Your task to perform on an android device: turn notification dots on Image 0: 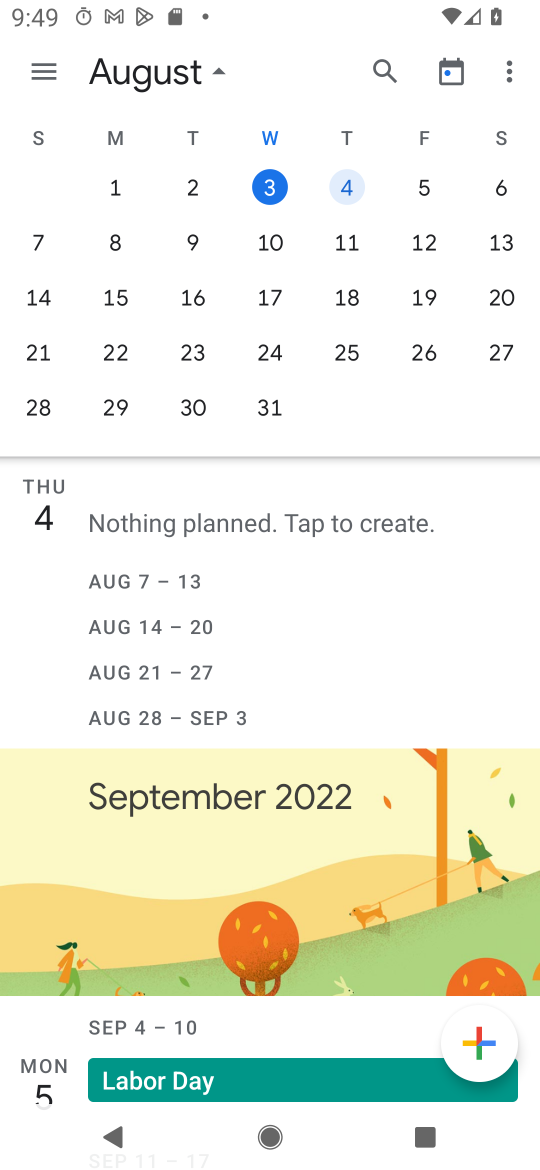
Step 0: press home button
Your task to perform on an android device: turn notification dots on Image 1: 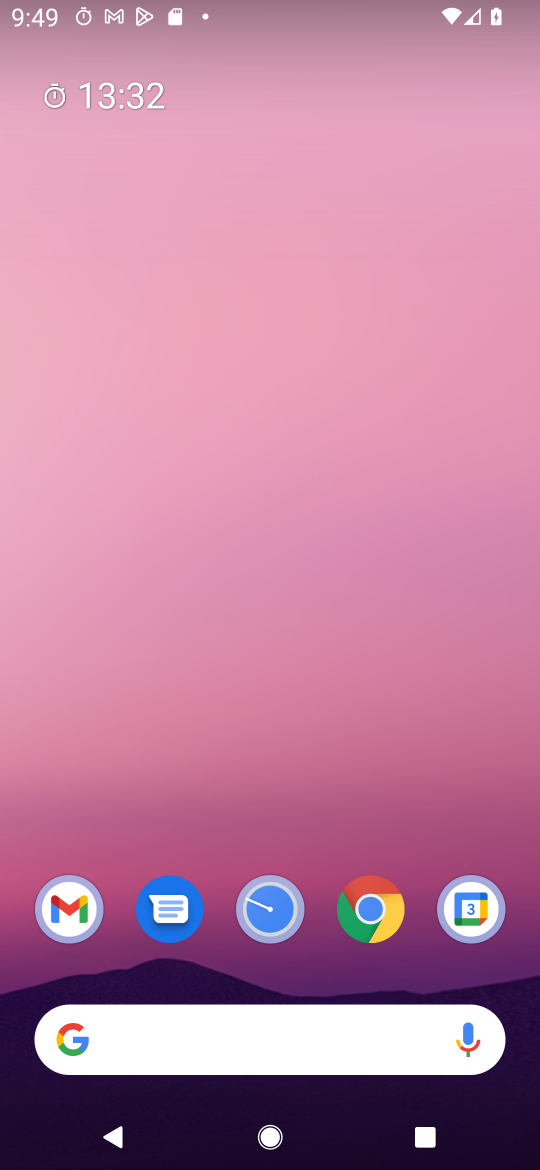
Step 1: drag from (410, 790) to (439, 330)
Your task to perform on an android device: turn notification dots on Image 2: 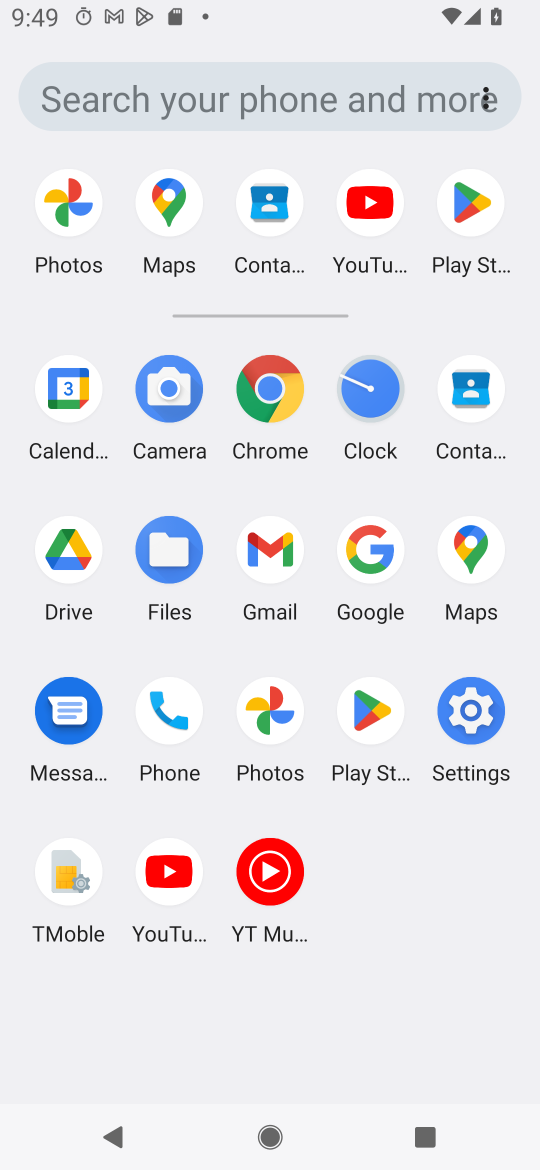
Step 2: click (479, 727)
Your task to perform on an android device: turn notification dots on Image 3: 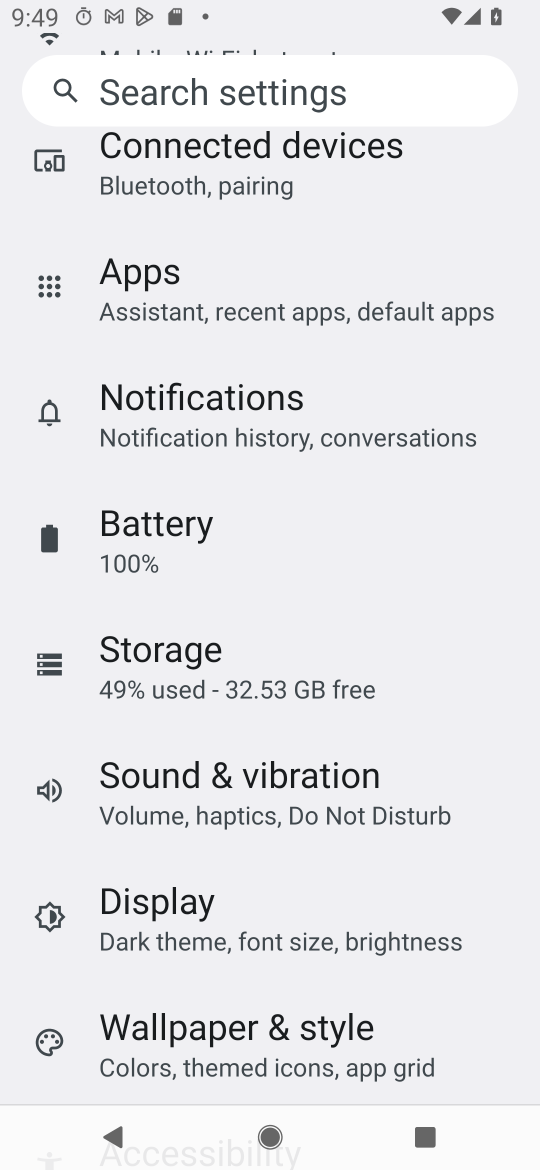
Step 3: drag from (445, 863) to (483, 604)
Your task to perform on an android device: turn notification dots on Image 4: 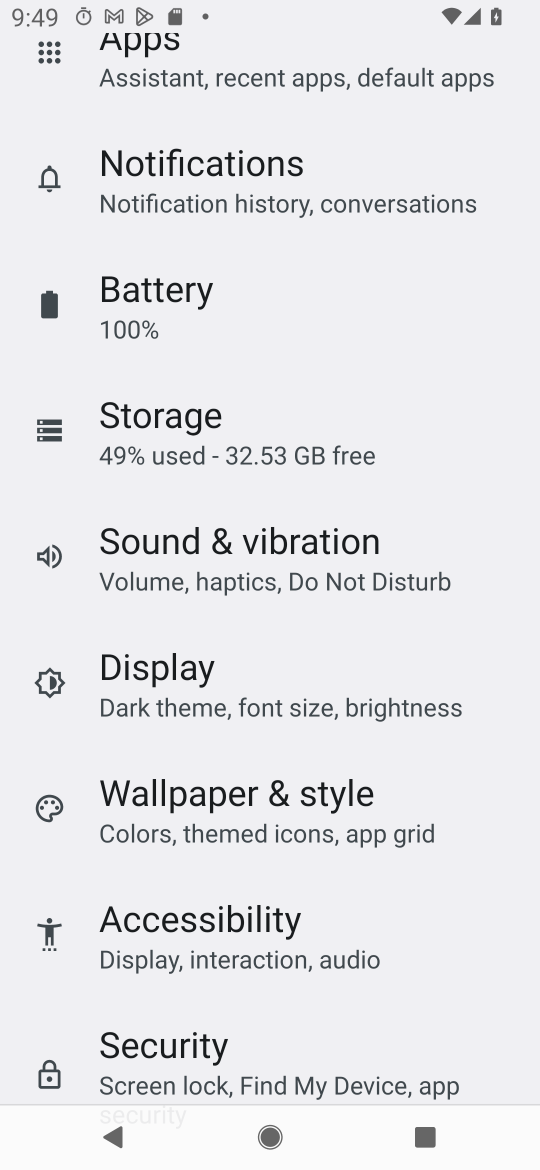
Step 4: drag from (490, 916) to (494, 676)
Your task to perform on an android device: turn notification dots on Image 5: 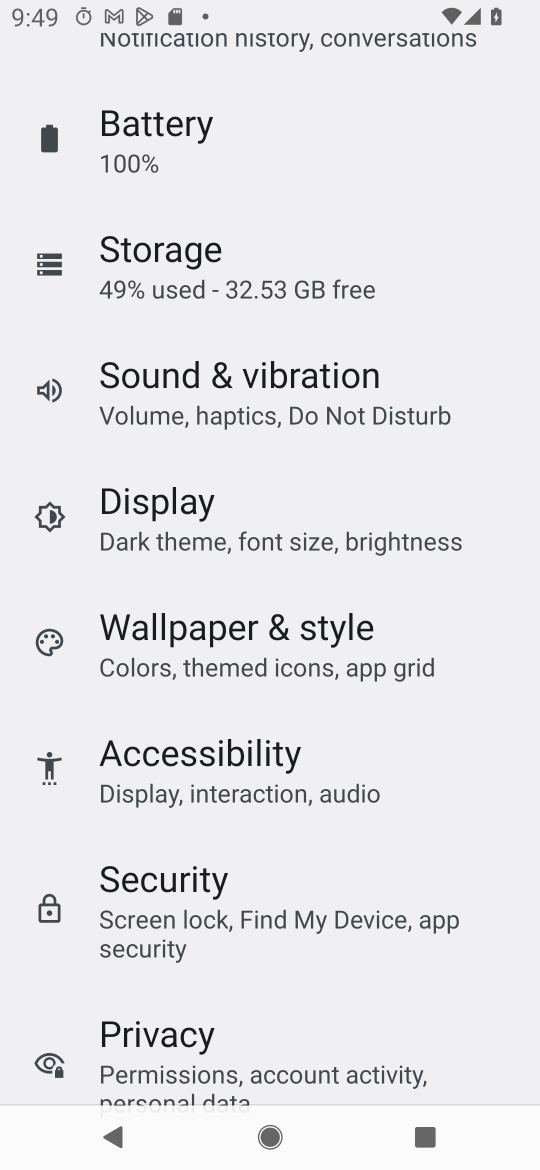
Step 5: drag from (504, 542) to (493, 725)
Your task to perform on an android device: turn notification dots on Image 6: 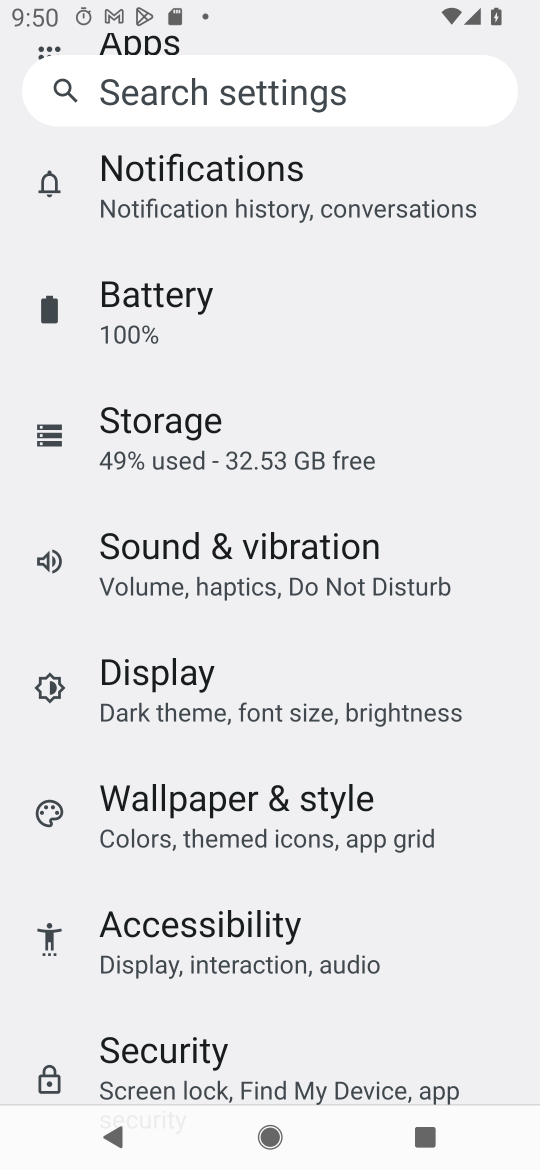
Step 6: drag from (493, 477) to (493, 609)
Your task to perform on an android device: turn notification dots on Image 7: 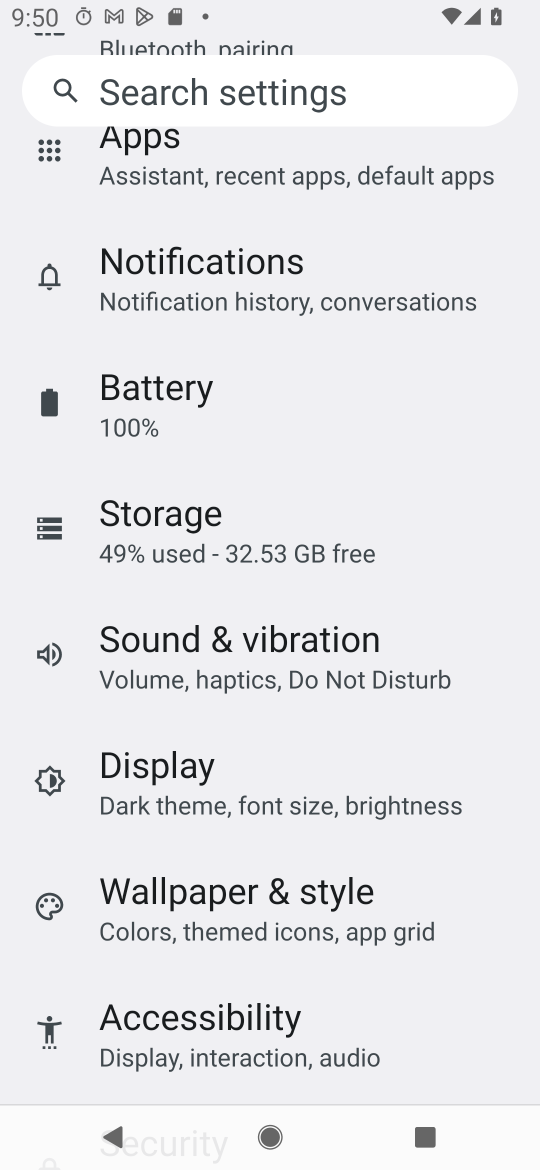
Step 7: drag from (475, 458) to (484, 618)
Your task to perform on an android device: turn notification dots on Image 8: 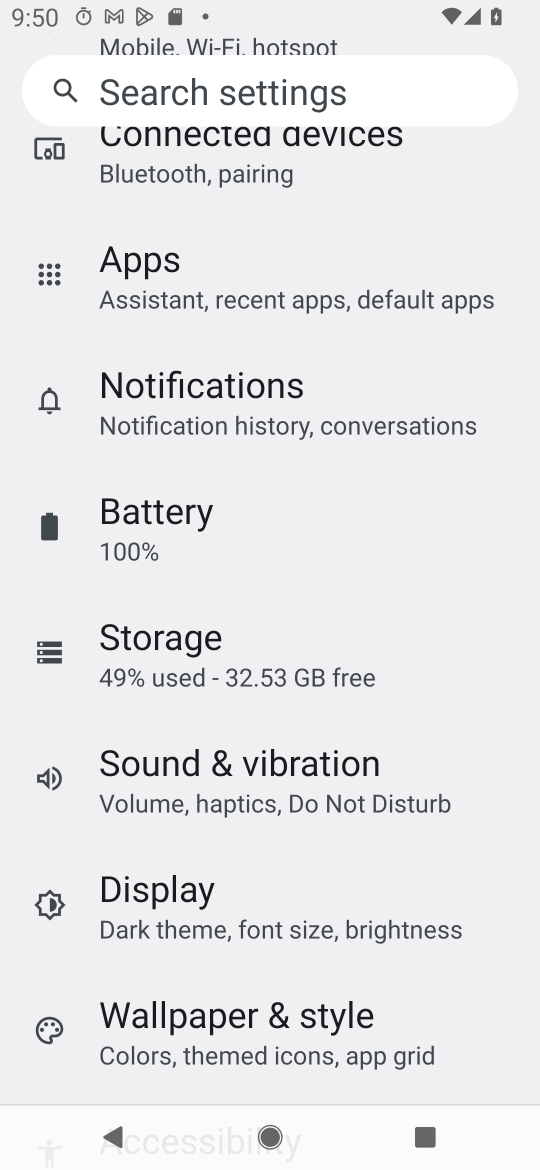
Step 8: drag from (476, 488) to (476, 676)
Your task to perform on an android device: turn notification dots on Image 9: 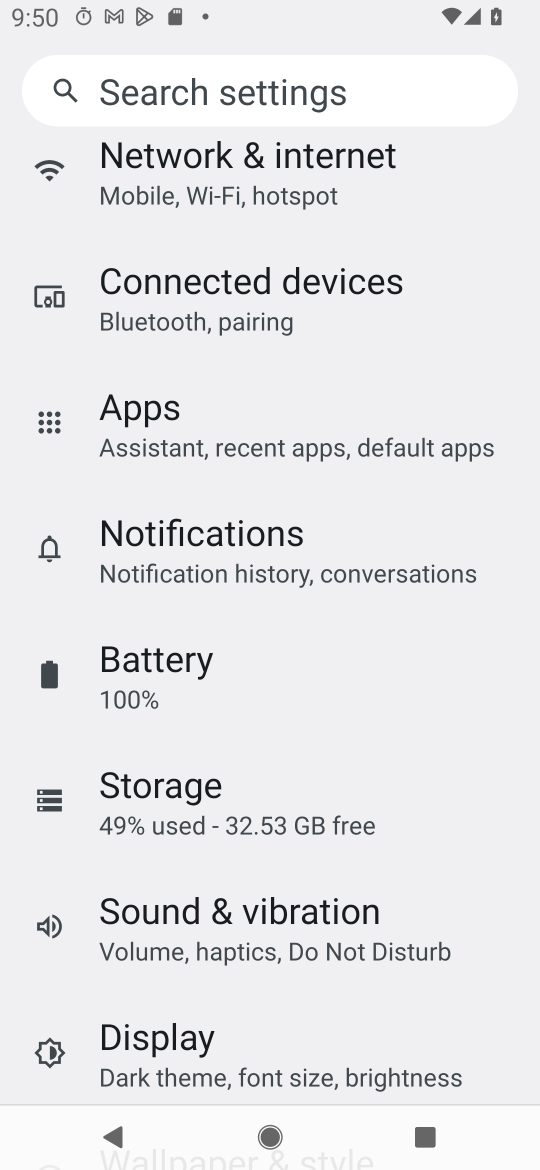
Step 9: drag from (487, 497) to (487, 697)
Your task to perform on an android device: turn notification dots on Image 10: 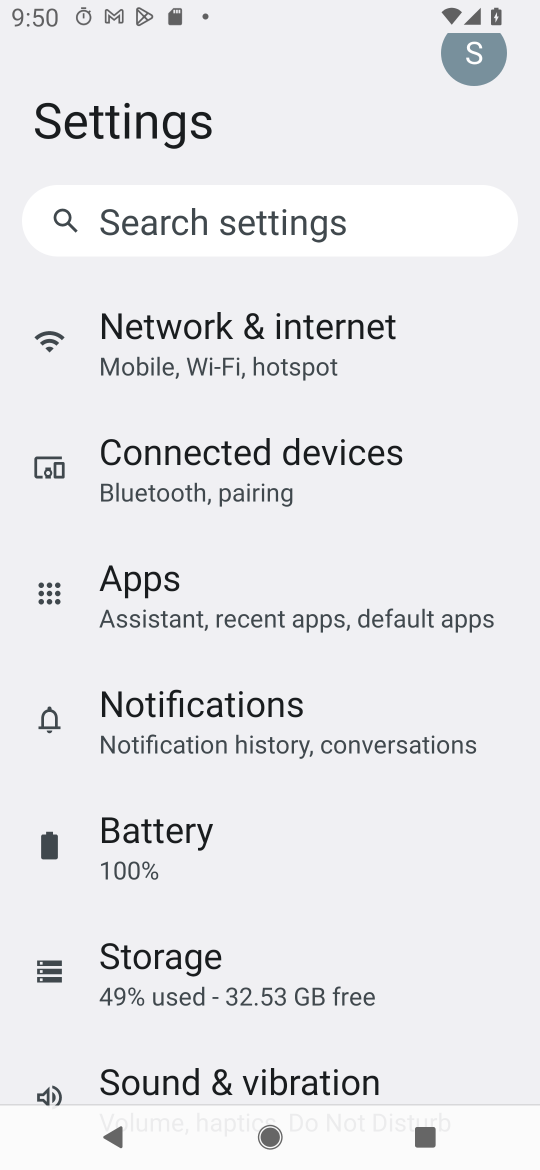
Step 10: click (363, 745)
Your task to perform on an android device: turn notification dots on Image 11: 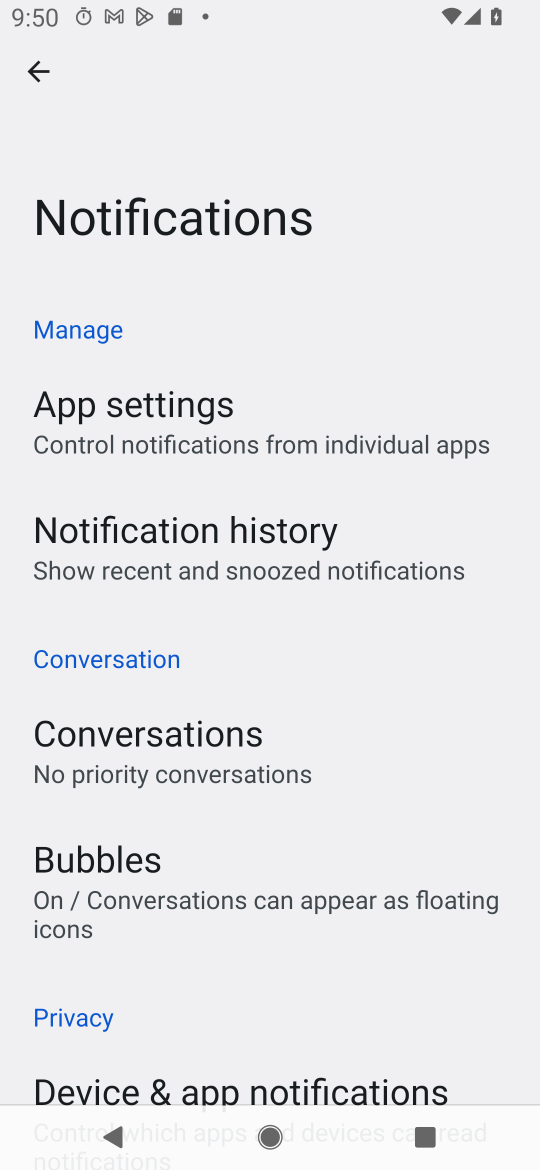
Step 11: drag from (385, 966) to (394, 816)
Your task to perform on an android device: turn notification dots on Image 12: 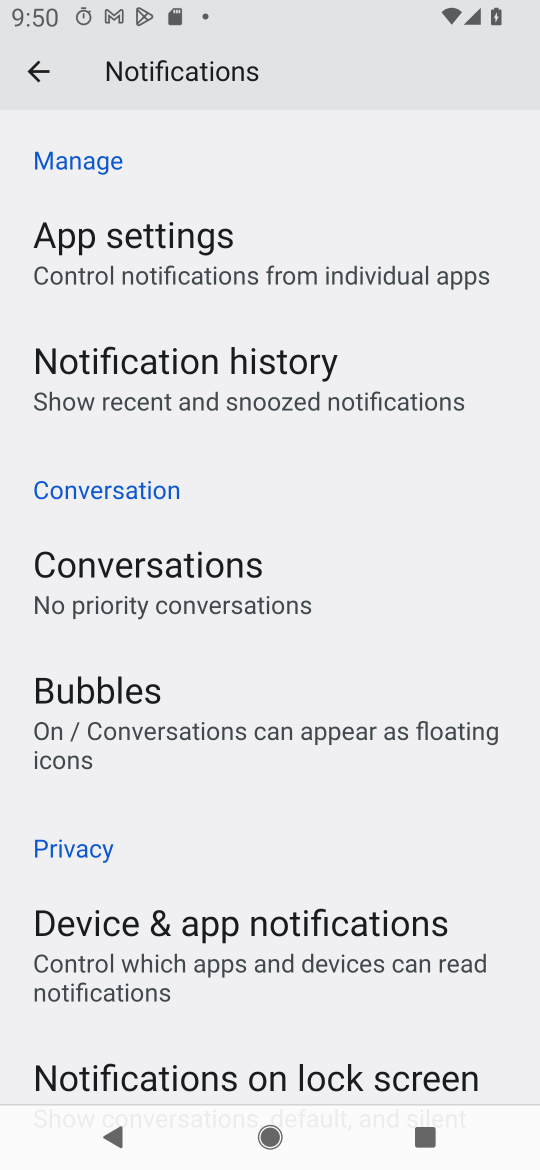
Step 12: drag from (443, 1042) to (485, 759)
Your task to perform on an android device: turn notification dots on Image 13: 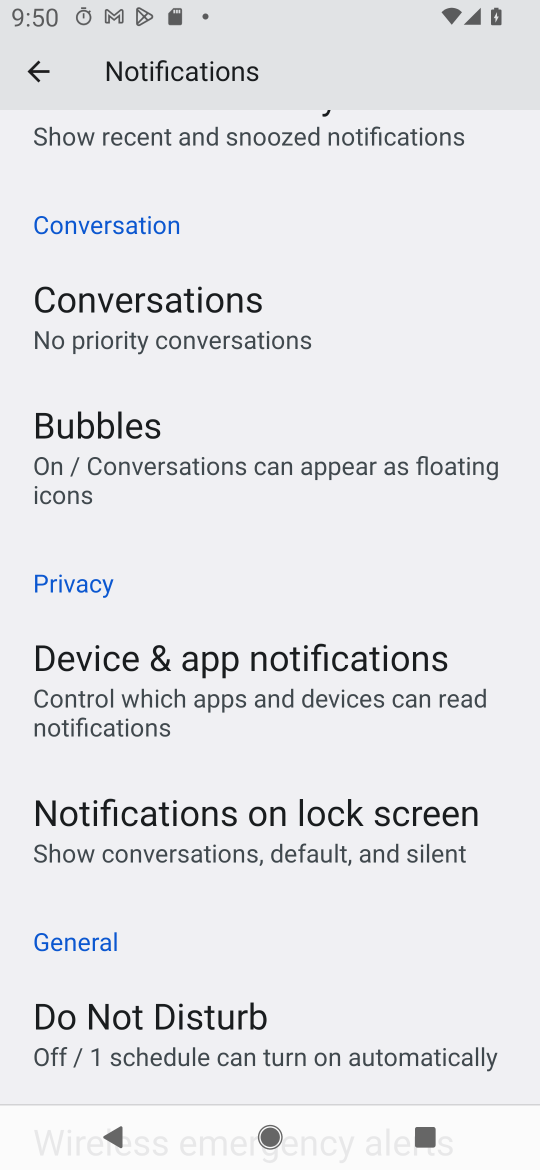
Step 13: drag from (456, 950) to (458, 657)
Your task to perform on an android device: turn notification dots on Image 14: 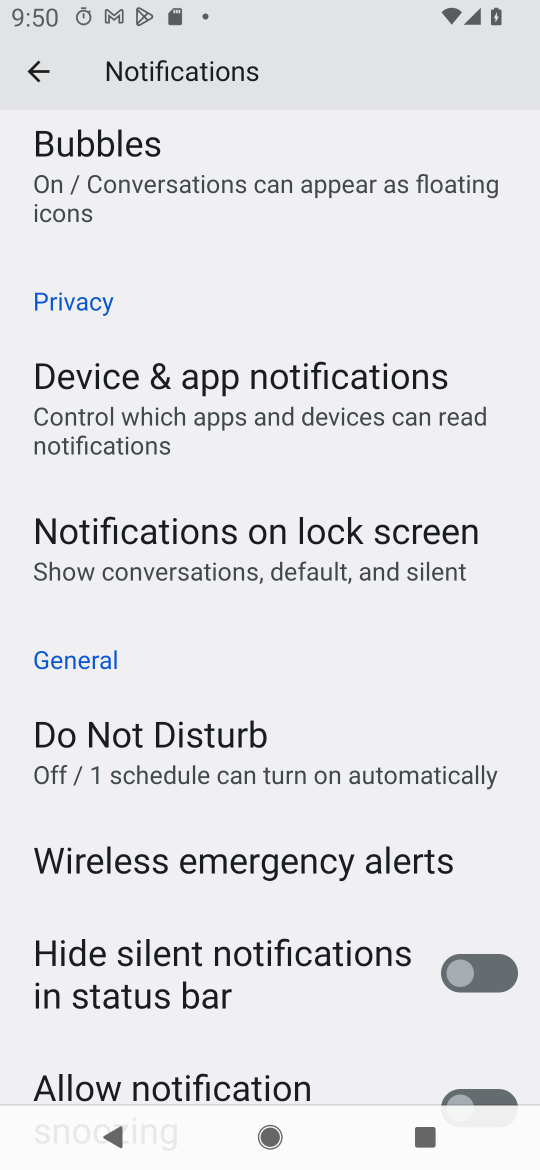
Step 14: drag from (374, 1002) to (383, 721)
Your task to perform on an android device: turn notification dots on Image 15: 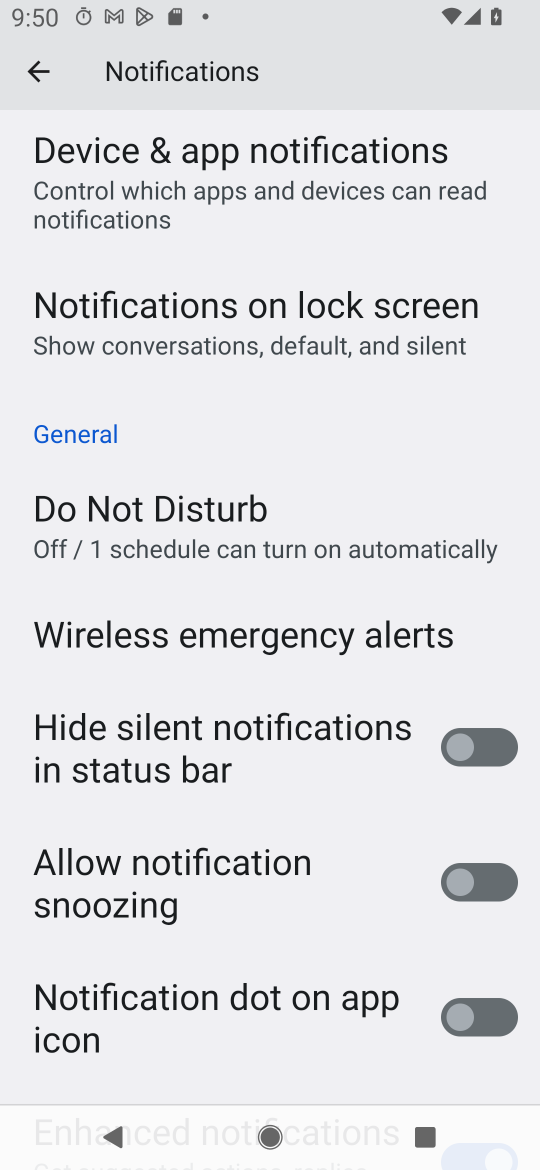
Step 15: click (482, 1022)
Your task to perform on an android device: turn notification dots on Image 16: 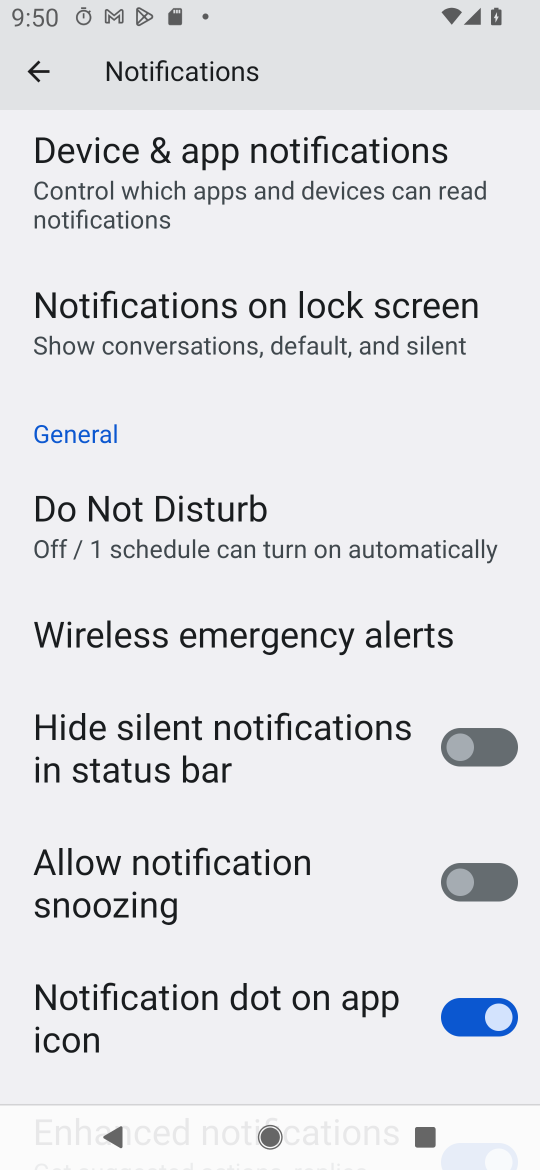
Step 16: task complete